Your task to perform on an android device: change the clock display to digital Image 0: 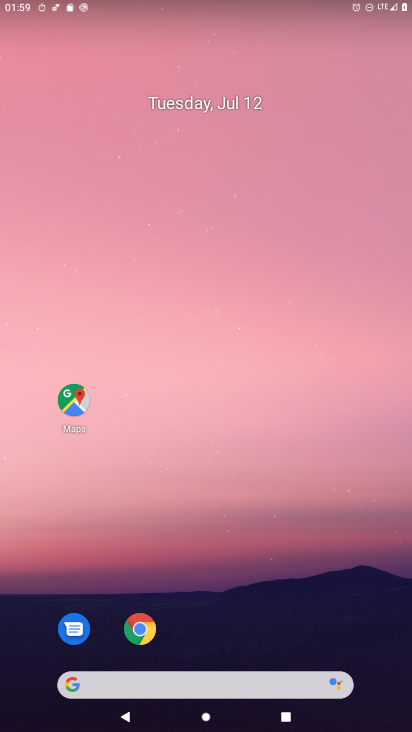
Step 0: drag from (56, 655) to (276, 180)
Your task to perform on an android device: change the clock display to digital Image 1: 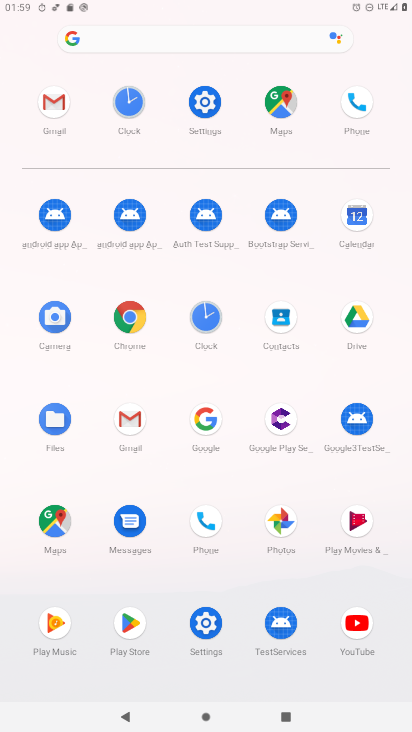
Step 1: click (225, 323)
Your task to perform on an android device: change the clock display to digital Image 2: 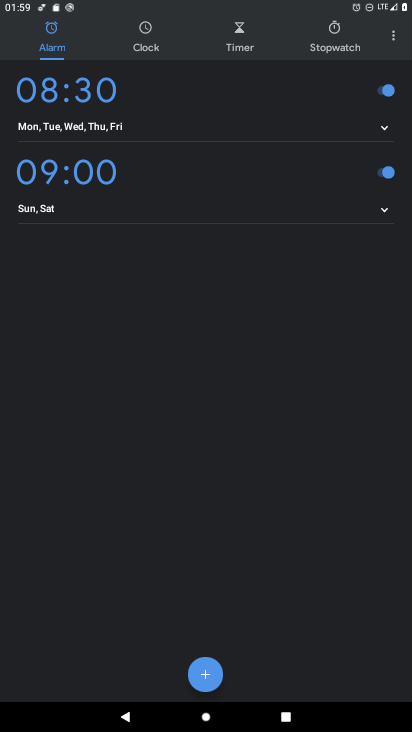
Step 2: click (223, 323)
Your task to perform on an android device: change the clock display to digital Image 3: 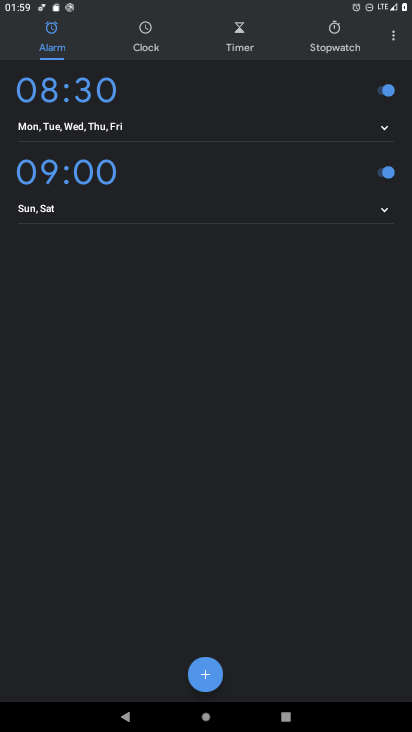
Step 3: click (389, 33)
Your task to perform on an android device: change the clock display to digital Image 4: 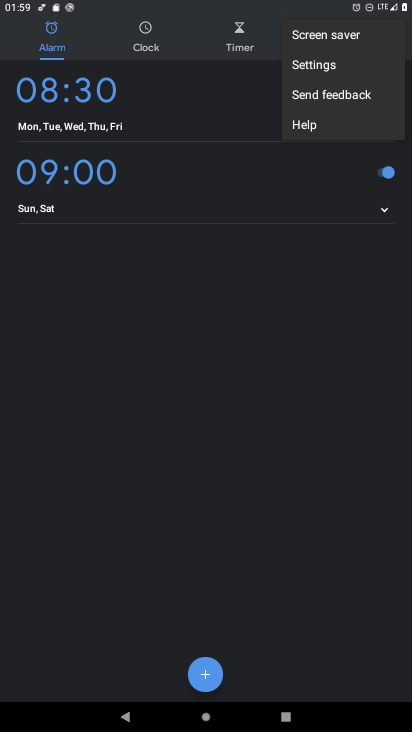
Step 4: click (314, 63)
Your task to perform on an android device: change the clock display to digital Image 5: 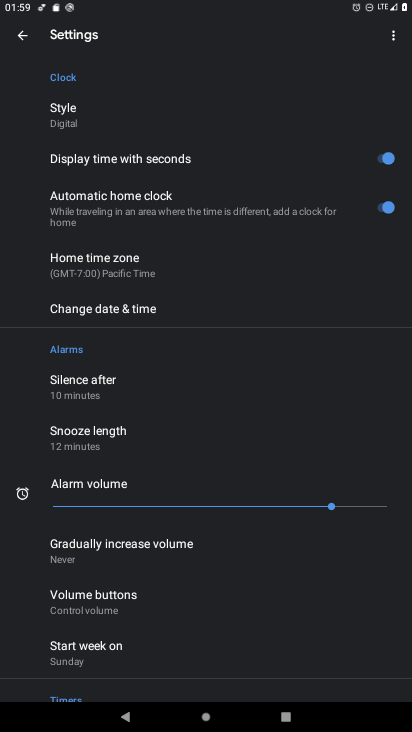
Step 5: click (69, 105)
Your task to perform on an android device: change the clock display to digital Image 6: 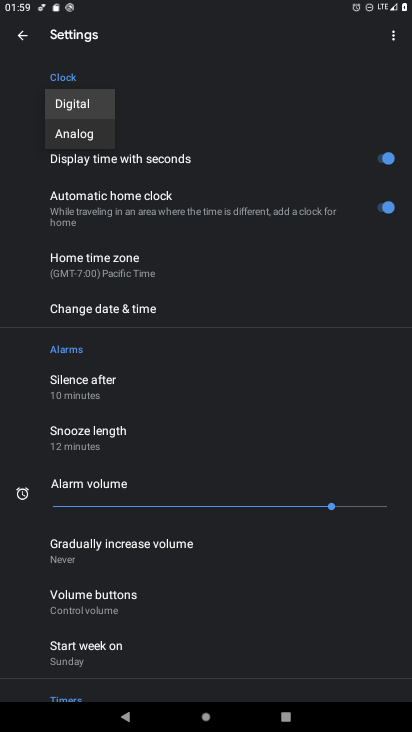
Step 6: click (73, 91)
Your task to perform on an android device: change the clock display to digital Image 7: 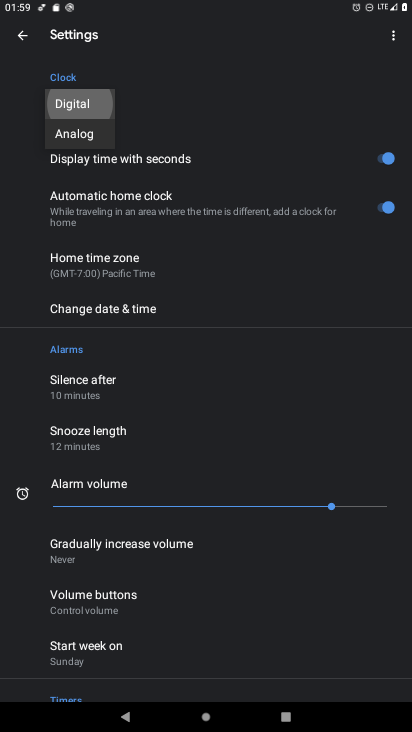
Step 7: click (69, 100)
Your task to perform on an android device: change the clock display to digital Image 8: 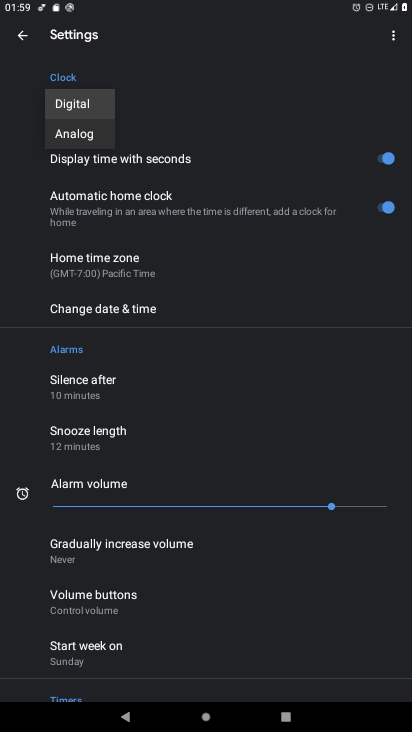
Step 8: task complete